Your task to perform on an android device: Search for pizza restaurants on Maps Image 0: 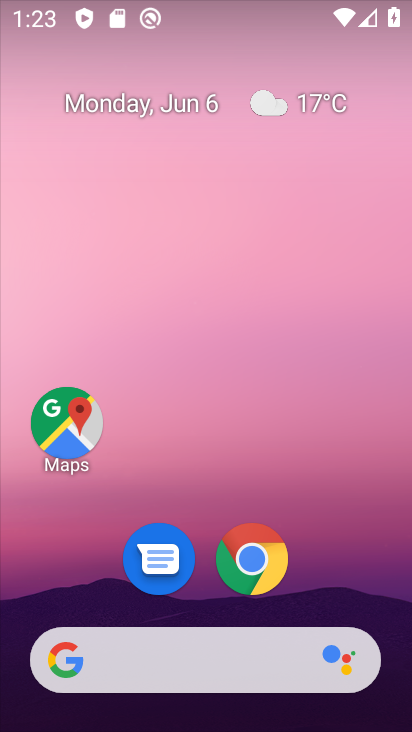
Step 0: drag from (241, 462) to (236, 211)
Your task to perform on an android device: Search for pizza restaurants on Maps Image 1: 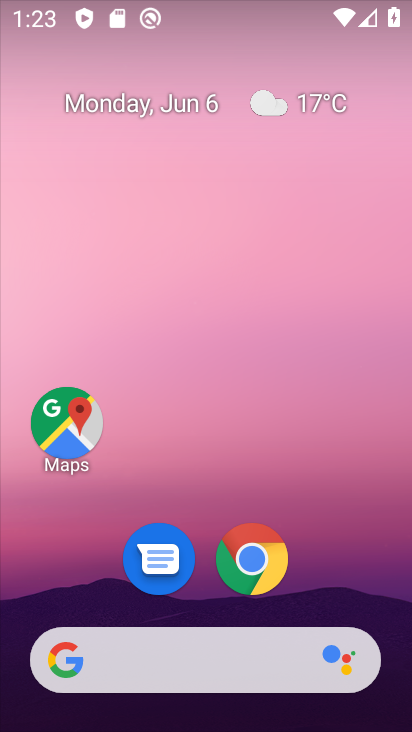
Step 1: drag from (240, 549) to (248, 214)
Your task to perform on an android device: Search for pizza restaurants on Maps Image 2: 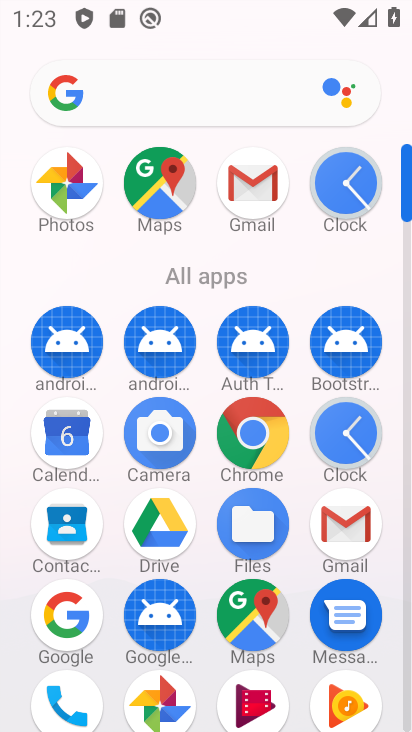
Step 2: drag from (183, 495) to (237, 195)
Your task to perform on an android device: Search for pizza restaurants on Maps Image 3: 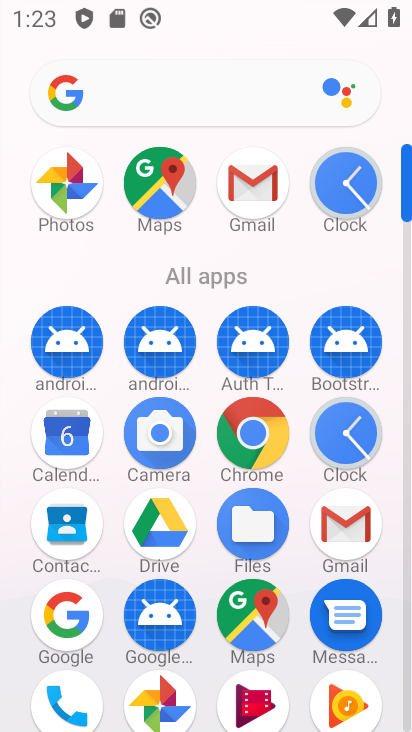
Step 3: drag from (263, 477) to (228, 184)
Your task to perform on an android device: Search for pizza restaurants on Maps Image 4: 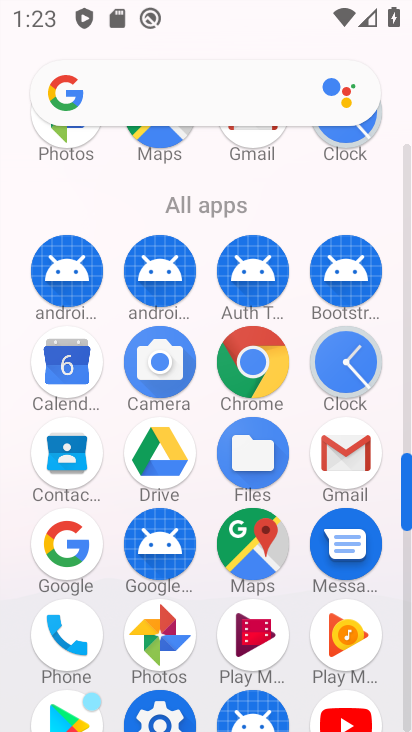
Step 4: click (251, 561)
Your task to perform on an android device: Search for pizza restaurants on Maps Image 5: 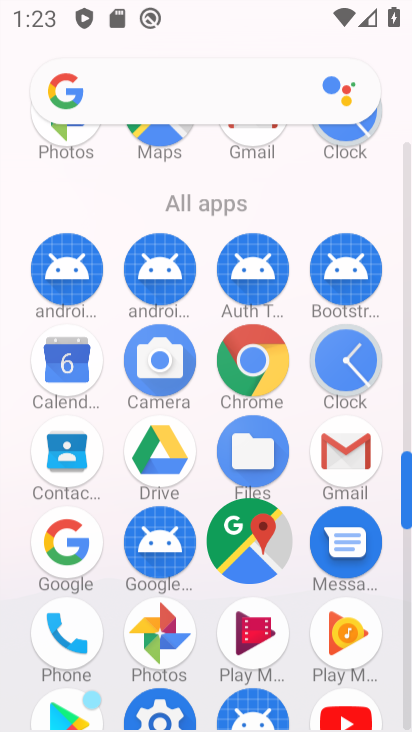
Step 5: click (253, 558)
Your task to perform on an android device: Search for pizza restaurants on Maps Image 6: 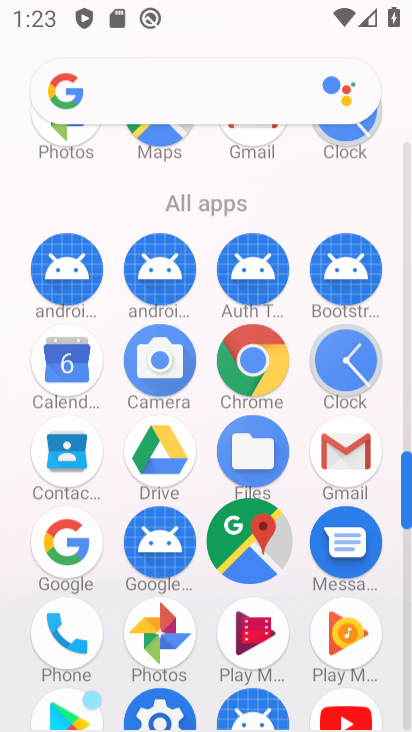
Step 6: click (254, 559)
Your task to perform on an android device: Search for pizza restaurants on Maps Image 7: 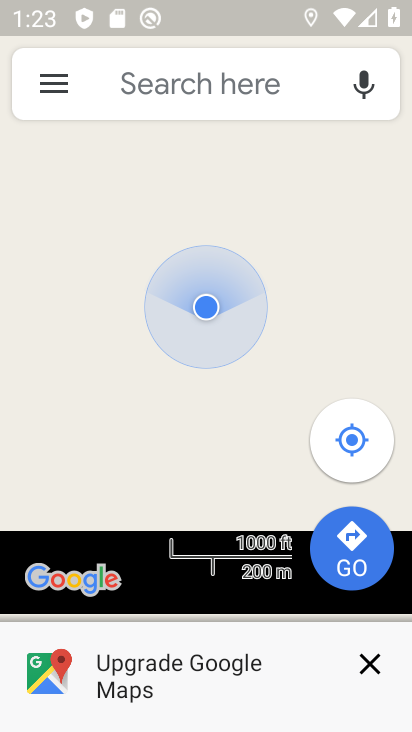
Step 7: click (122, 88)
Your task to perform on an android device: Search for pizza restaurants on Maps Image 8: 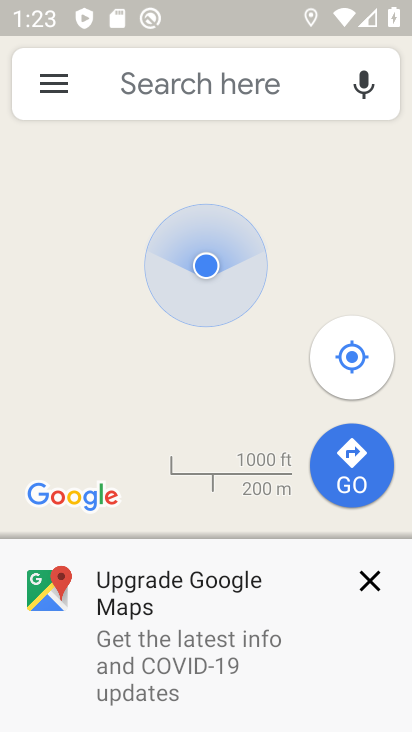
Step 8: click (122, 88)
Your task to perform on an android device: Search for pizza restaurants on Maps Image 9: 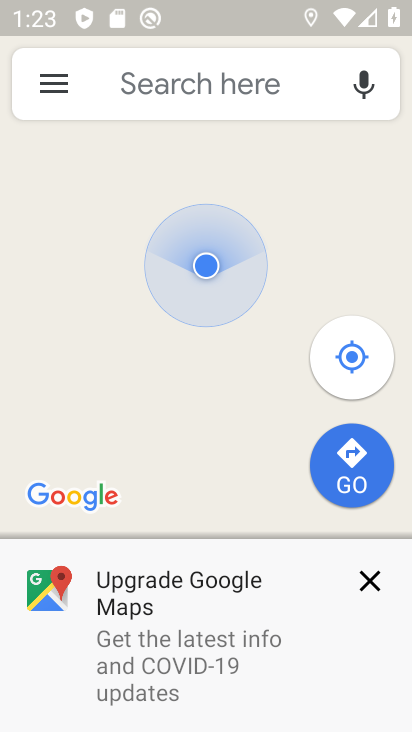
Step 9: click (122, 88)
Your task to perform on an android device: Search for pizza restaurants on Maps Image 10: 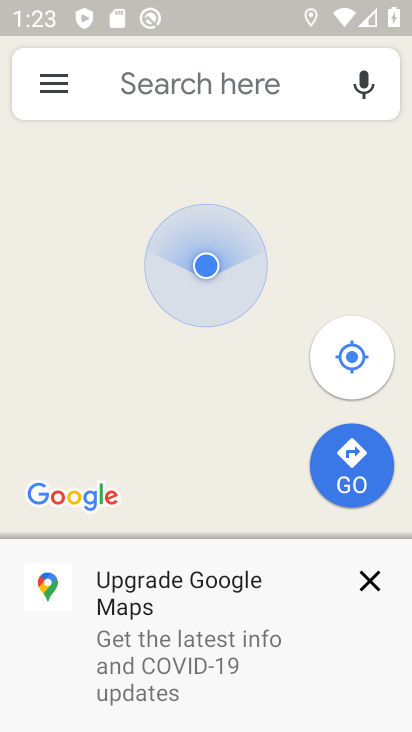
Step 10: click (127, 99)
Your task to perform on an android device: Search for pizza restaurants on Maps Image 11: 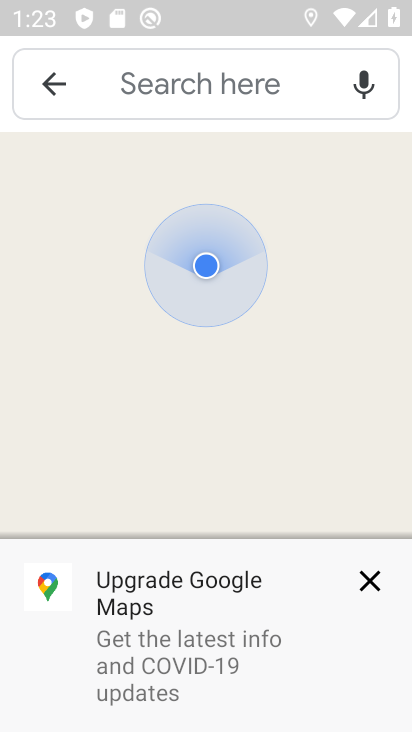
Step 11: click (127, 99)
Your task to perform on an android device: Search for pizza restaurants on Maps Image 12: 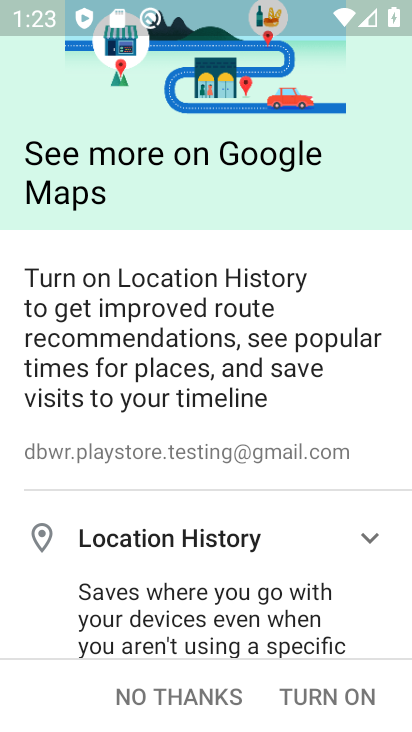
Step 12: click (177, 702)
Your task to perform on an android device: Search for pizza restaurants on Maps Image 13: 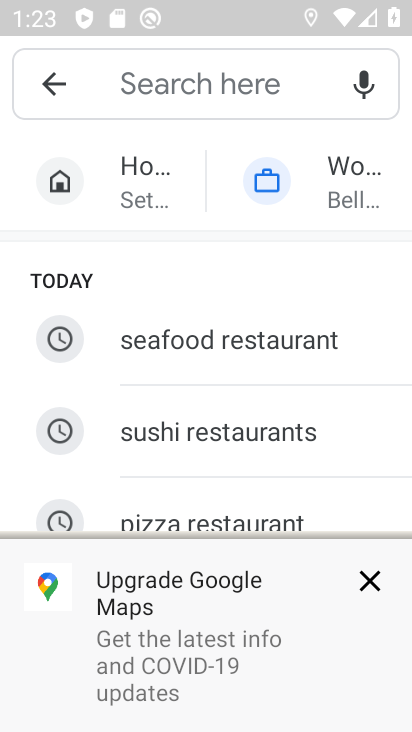
Step 13: click (153, 527)
Your task to perform on an android device: Search for pizza restaurants on Maps Image 14: 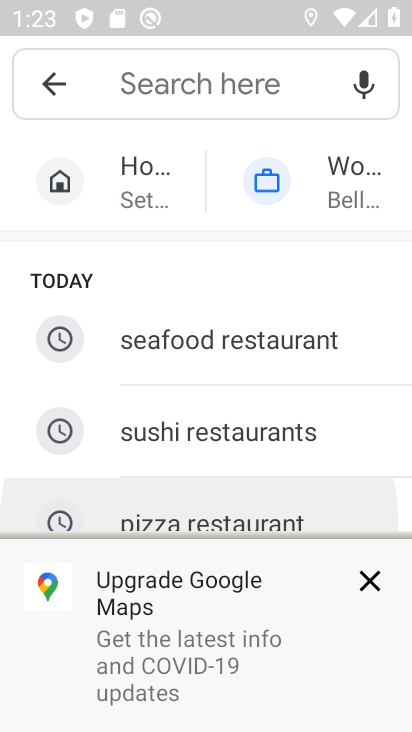
Step 14: click (143, 519)
Your task to perform on an android device: Search for pizza restaurants on Maps Image 15: 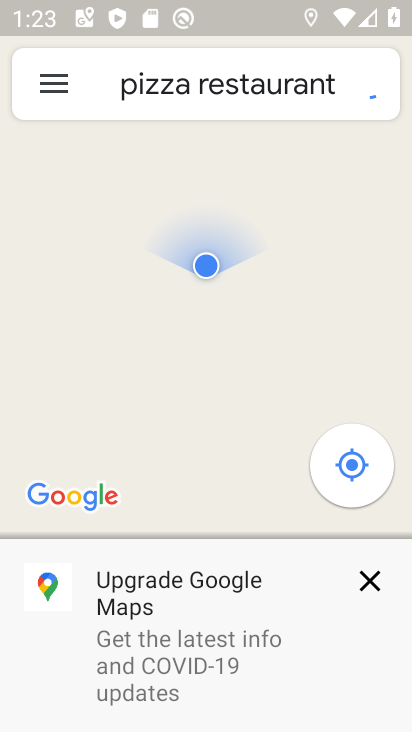
Step 15: task complete